Your task to perform on an android device: Go to Google maps Image 0: 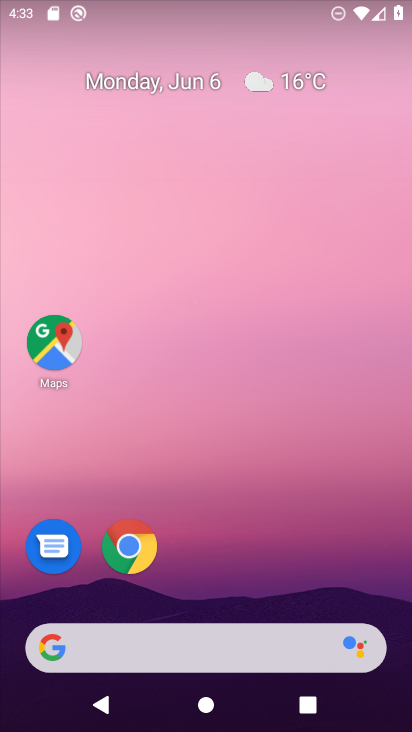
Step 0: press home button
Your task to perform on an android device: Go to Google maps Image 1: 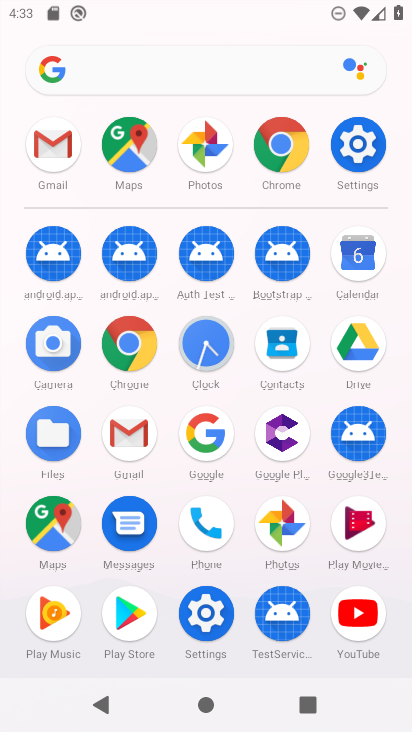
Step 1: click (55, 359)
Your task to perform on an android device: Go to Google maps Image 2: 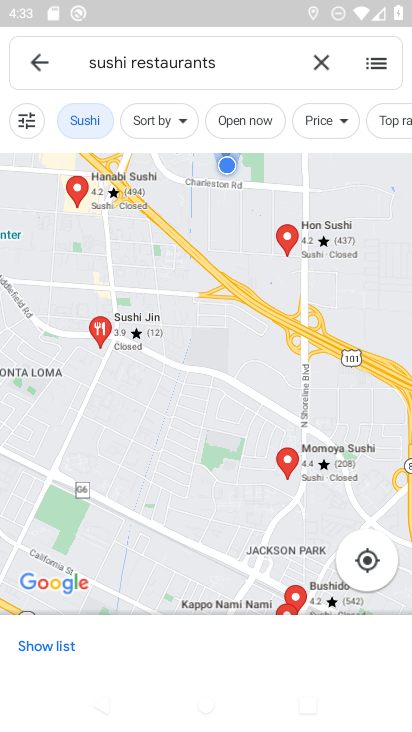
Step 2: task complete